Your task to perform on an android device: Search for Mexican restaurants on Maps Image 0: 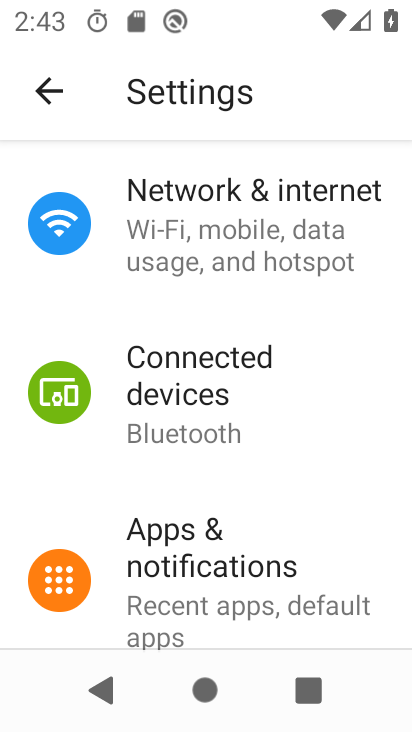
Step 0: press home button
Your task to perform on an android device: Search for Mexican restaurants on Maps Image 1: 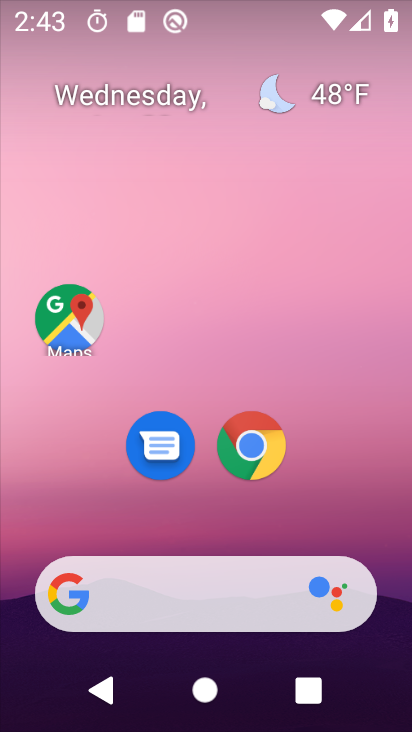
Step 1: click (67, 318)
Your task to perform on an android device: Search for Mexican restaurants on Maps Image 2: 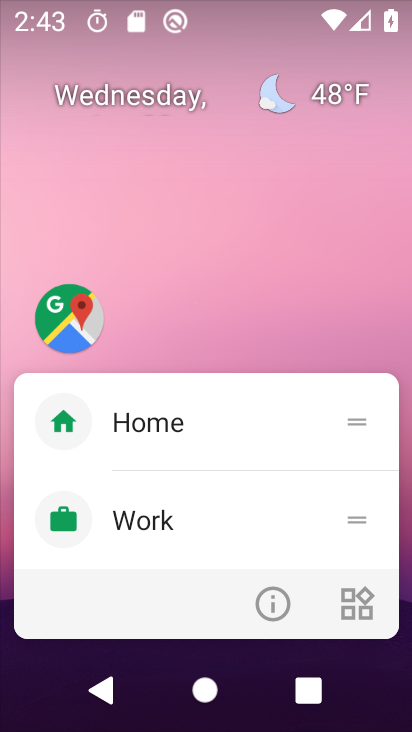
Step 2: click (73, 311)
Your task to perform on an android device: Search for Mexican restaurants on Maps Image 3: 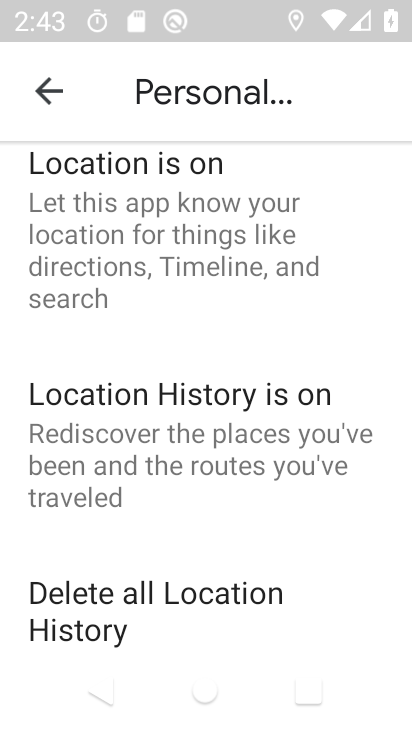
Step 3: click (43, 96)
Your task to perform on an android device: Search for Mexican restaurants on Maps Image 4: 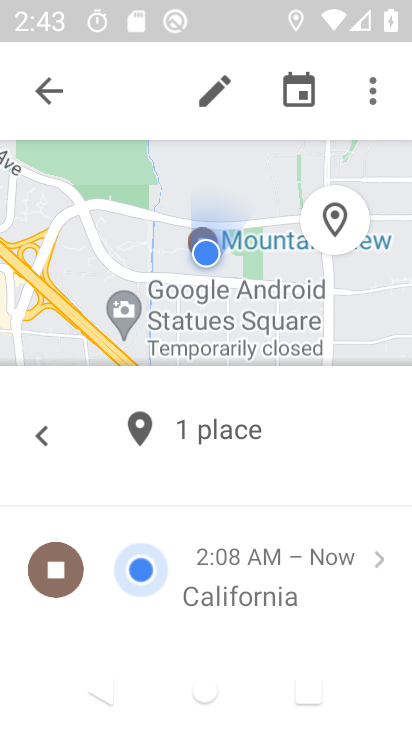
Step 4: click (43, 96)
Your task to perform on an android device: Search for Mexican restaurants on Maps Image 5: 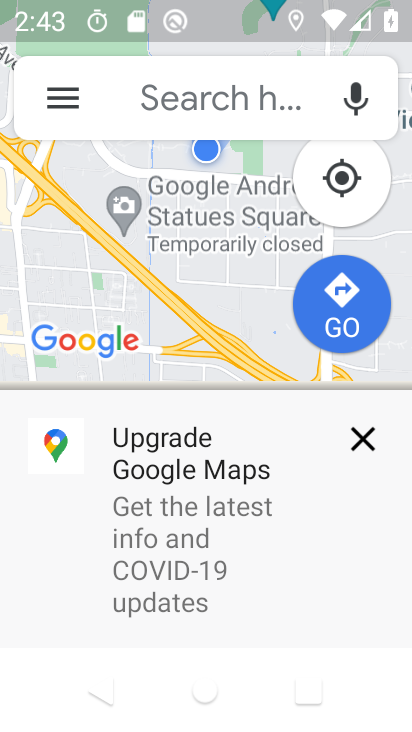
Step 5: click (162, 94)
Your task to perform on an android device: Search for Mexican restaurants on Maps Image 6: 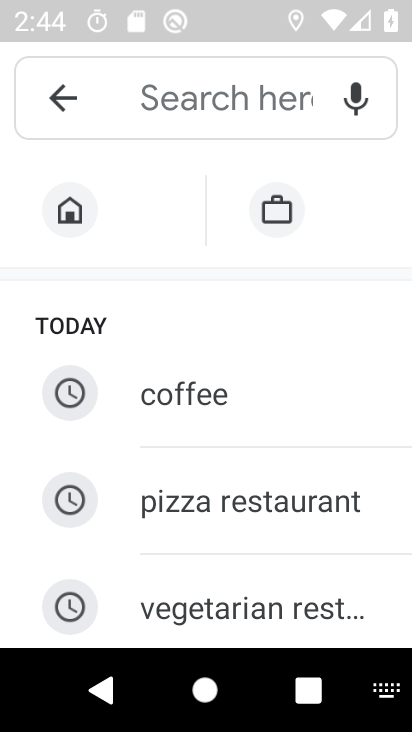
Step 6: type "mexican restaurant "
Your task to perform on an android device: Search for Mexican restaurants on Maps Image 7: 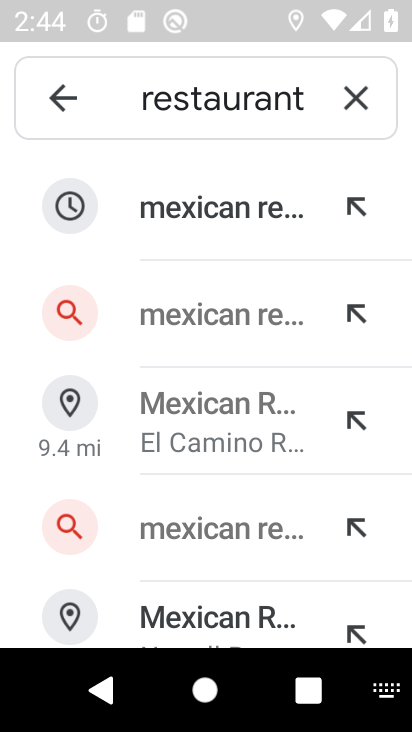
Step 7: click (168, 213)
Your task to perform on an android device: Search for Mexican restaurants on Maps Image 8: 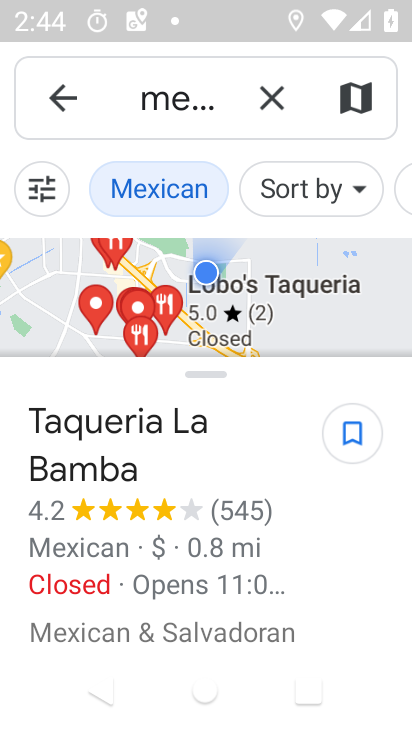
Step 8: task complete